Your task to perform on an android device: Add beats solo 3 to the cart on newegg, then select checkout. Image 0: 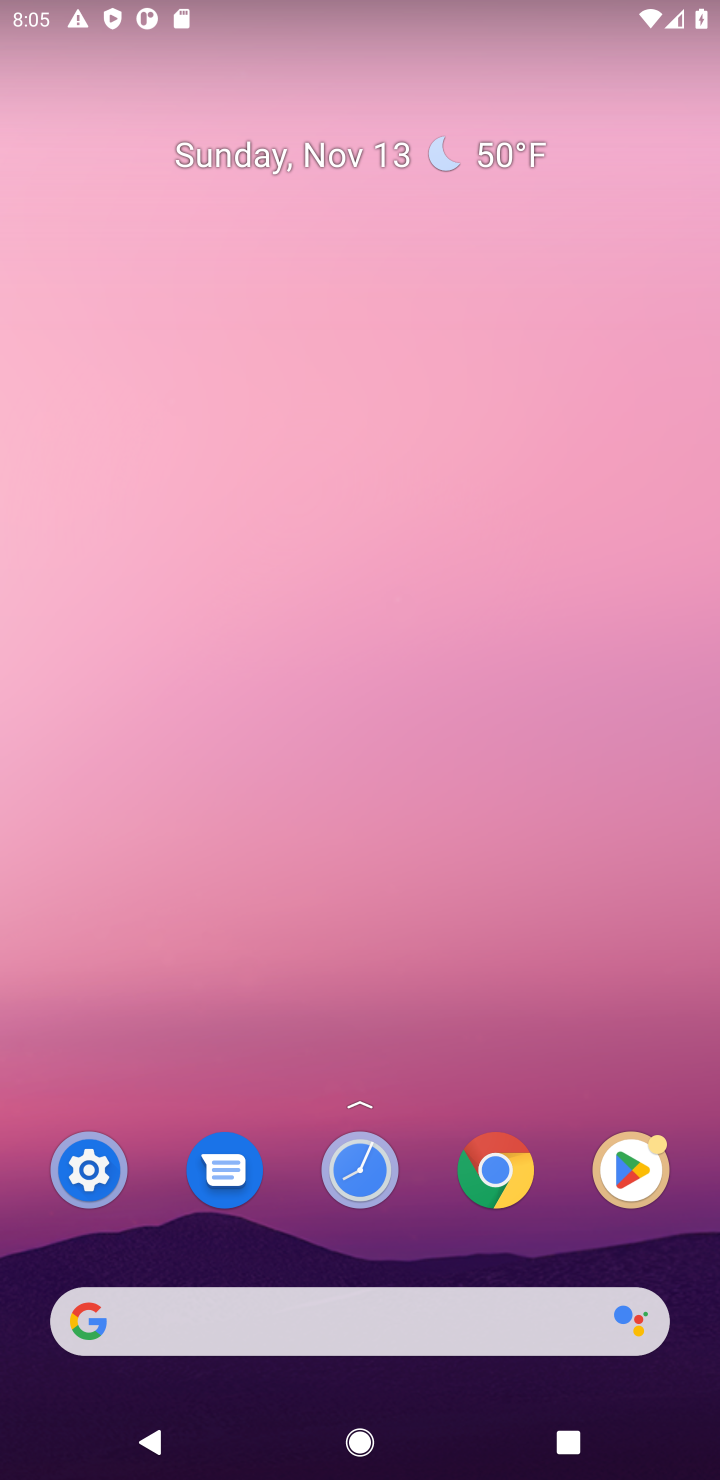
Step 0: click (368, 1334)
Your task to perform on an android device: Add beats solo 3 to the cart on newegg, then select checkout. Image 1: 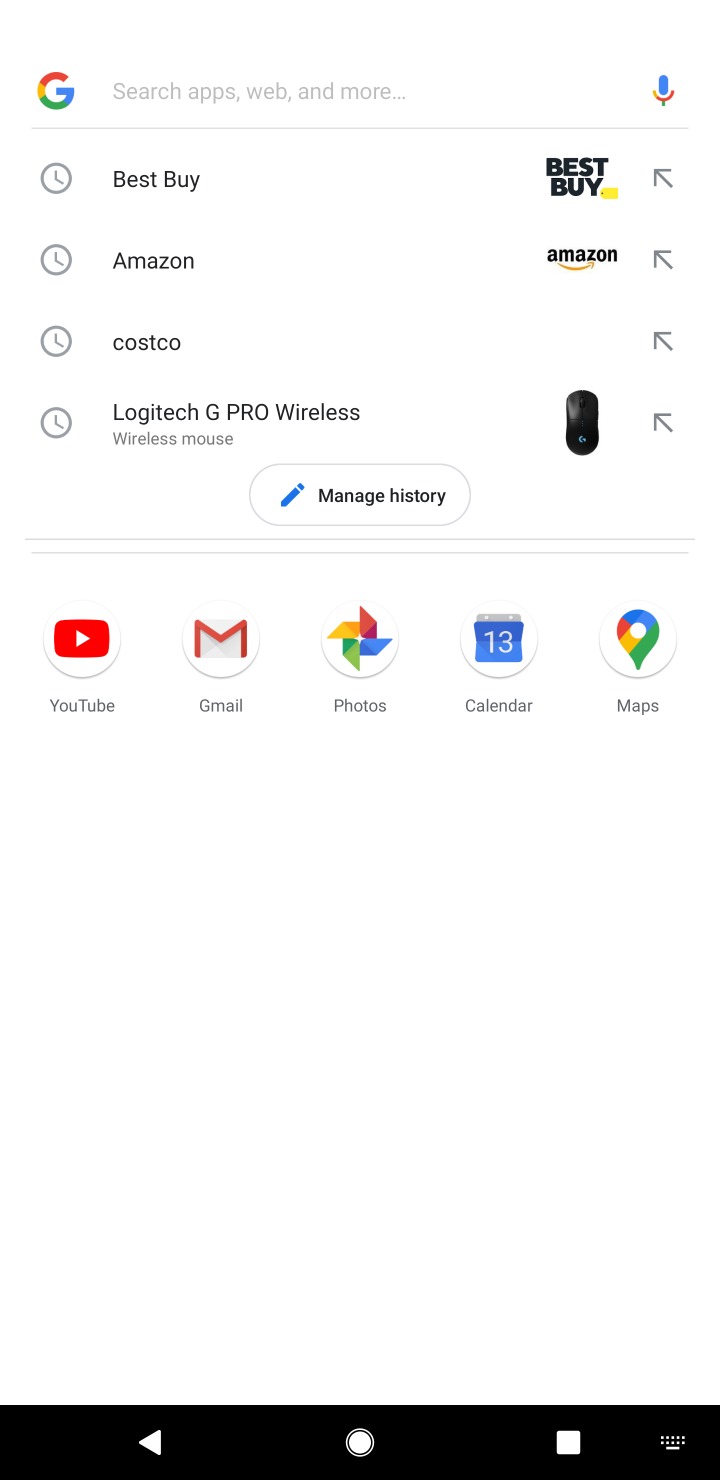
Step 1: type "newegg"
Your task to perform on an android device: Add beats solo 3 to the cart on newegg, then select checkout. Image 2: 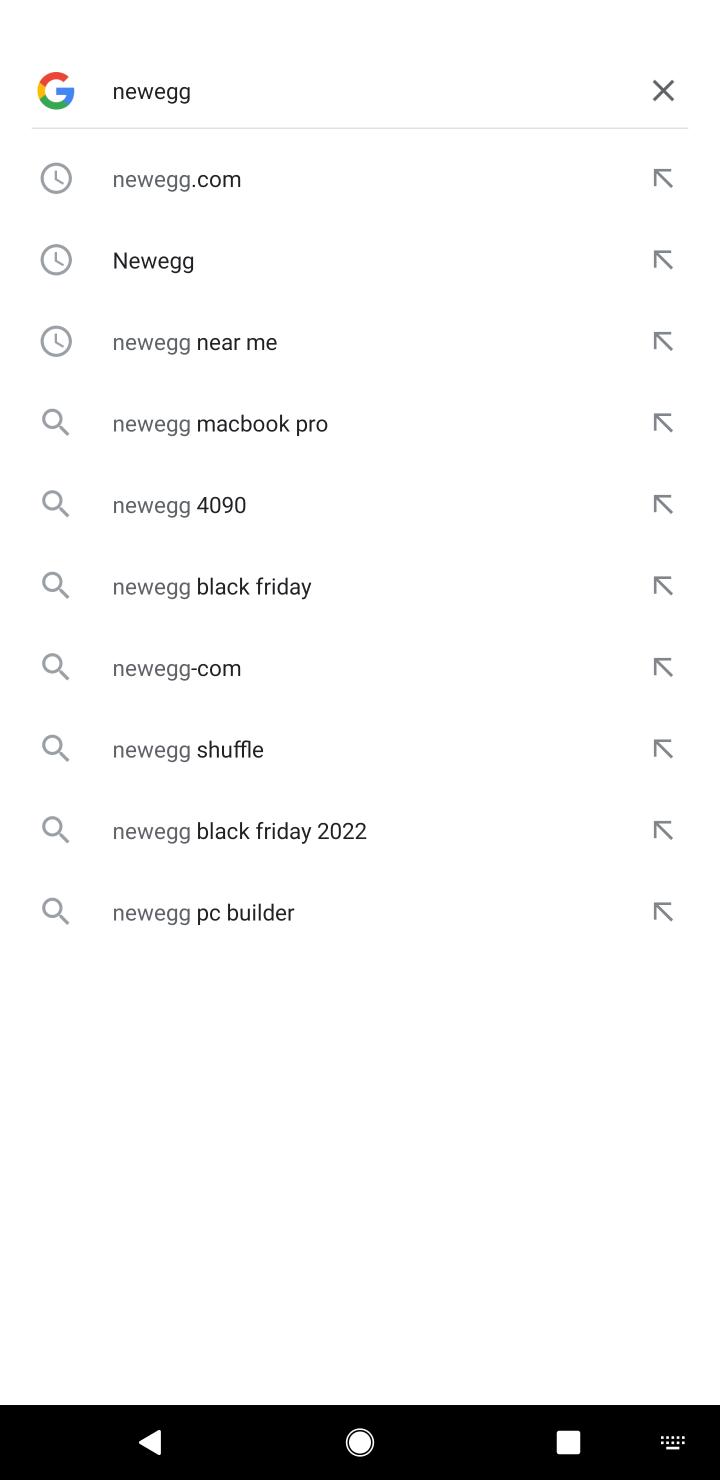
Step 2: click (366, 184)
Your task to perform on an android device: Add beats solo 3 to the cart on newegg, then select checkout. Image 3: 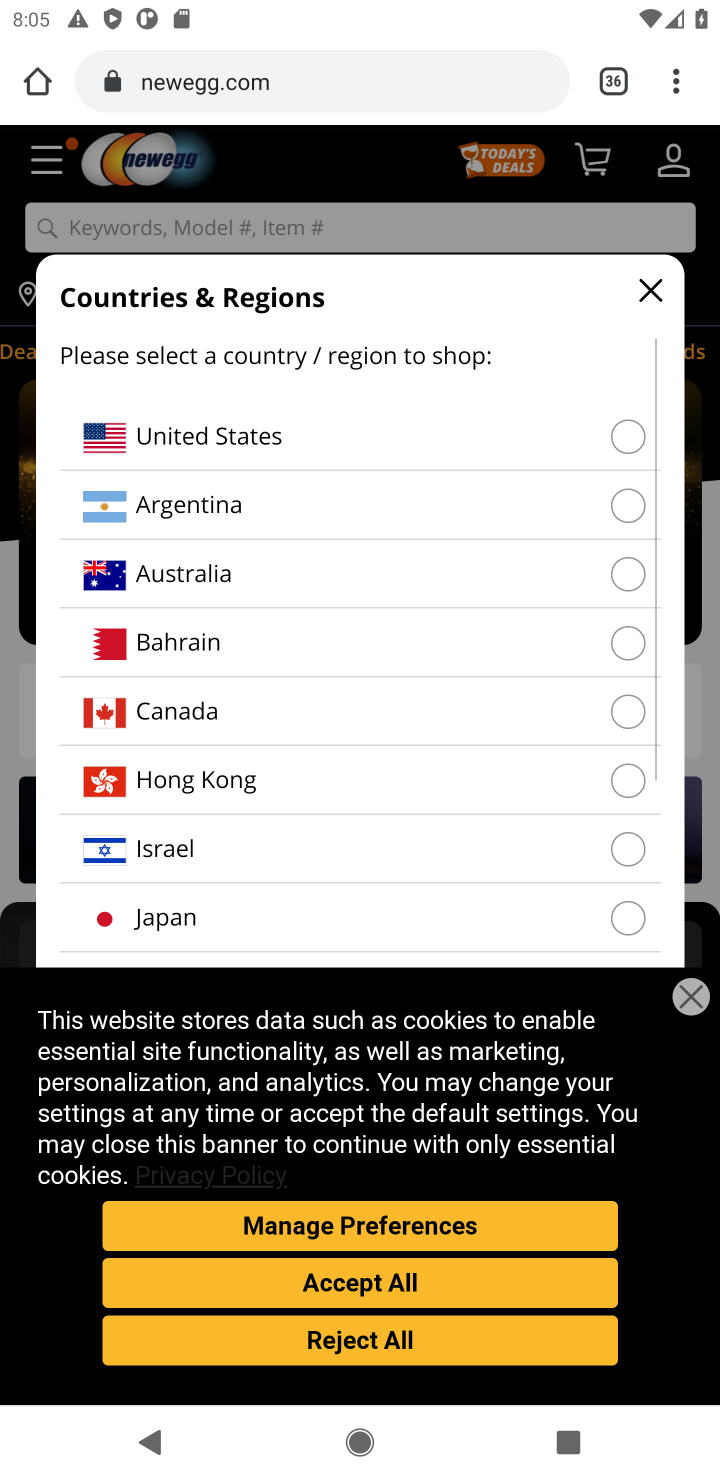
Step 3: task complete